Your task to perform on an android device: Open Chrome and go to the settings page Image 0: 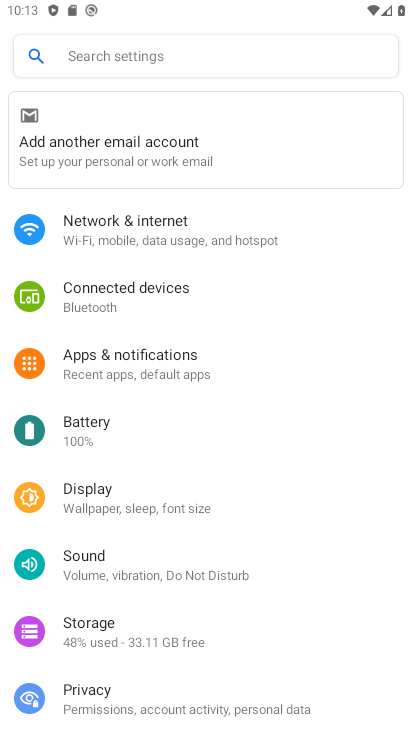
Step 0: press home button
Your task to perform on an android device: Open Chrome and go to the settings page Image 1: 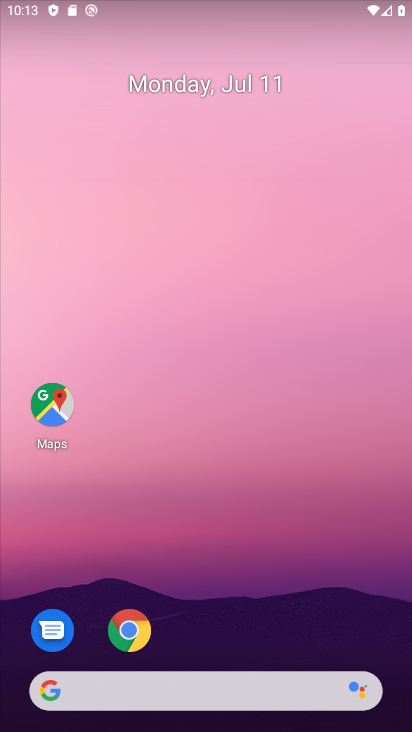
Step 1: drag from (245, 612) to (262, 156)
Your task to perform on an android device: Open Chrome and go to the settings page Image 2: 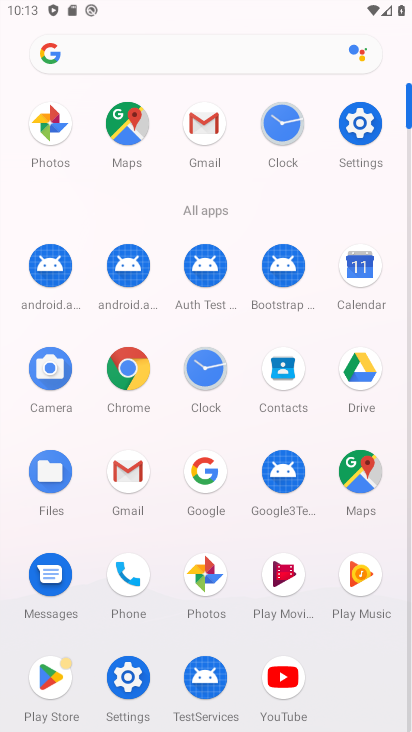
Step 2: click (353, 120)
Your task to perform on an android device: Open Chrome and go to the settings page Image 3: 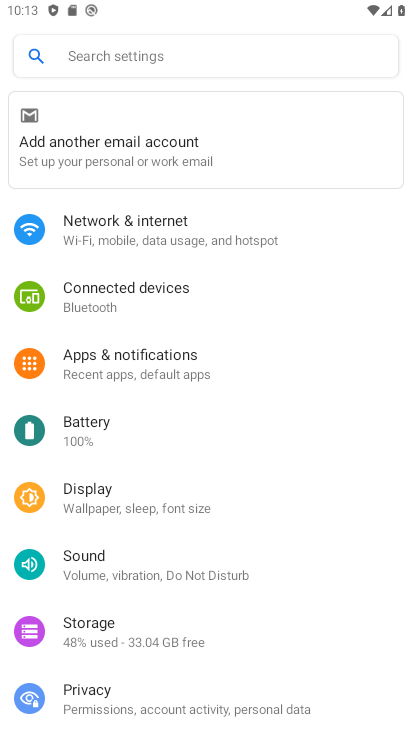
Step 3: press home button
Your task to perform on an android device: Open Chrome and go to the settings page Image 4: 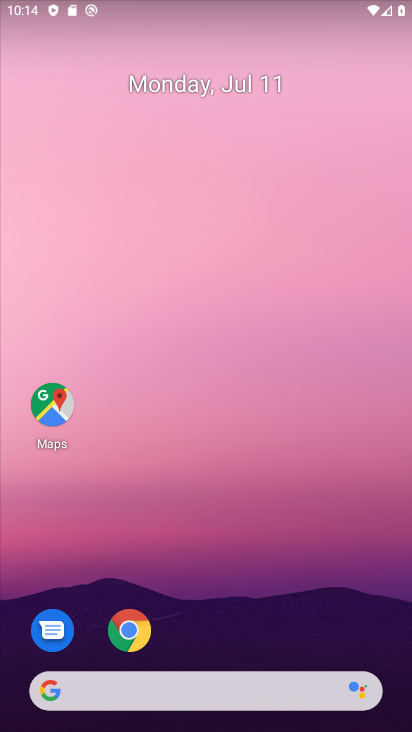
Step 4: click (134, 632)
Your task to perform on an android device: Open Chrome and go to the settings page Image 5: 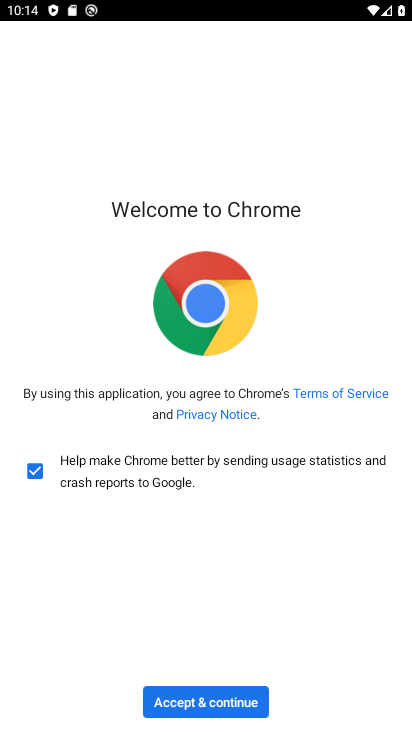
Step 5: click (208, 687)
Your task to perform on an android device: Open Chrome and go to the settings page Image 6: 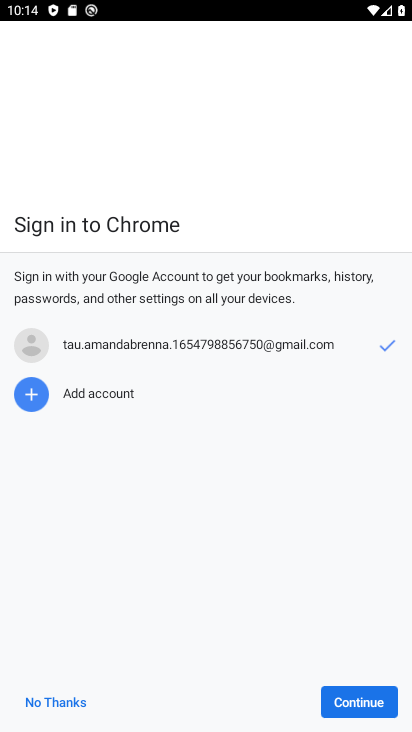
Step 6: click (336, 695)
Your task to perform on an android device: Open Chrome and go to the settings page Image 7: 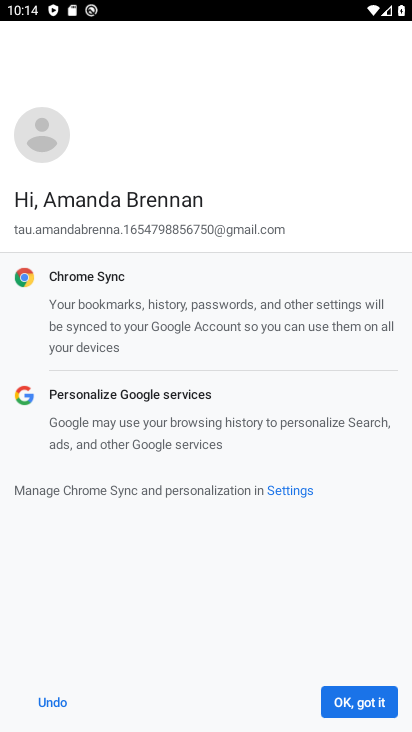
Step 7: click (336, 695)
Your task to perform on an android device: Open Chrome and go to the settings page Image 8: 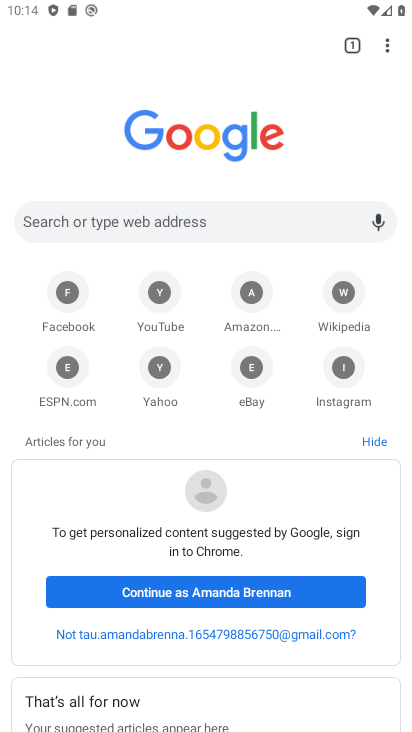
Step 8: click (385, 33)
Your task to perform on an android device: Open Chrome and go to the settings page Image 9: 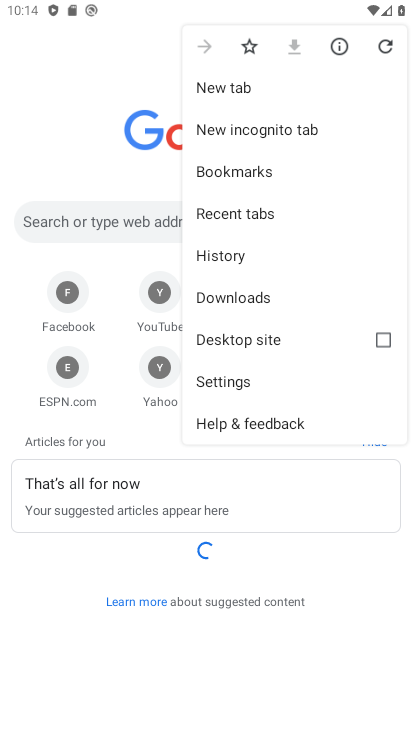
Step 9: click (264, 385)
Your task to perform on an android device: Open Chrome and go to the settings page Image 10: 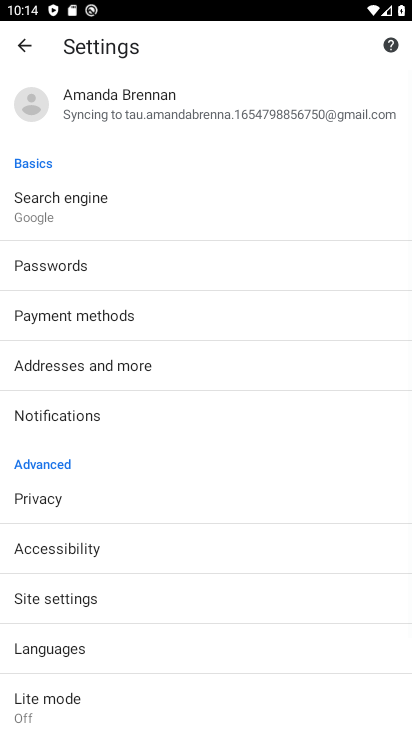
Step 10: task complete